Your task to perform on an android device: turn off smart reply in the gmail app Image 0: 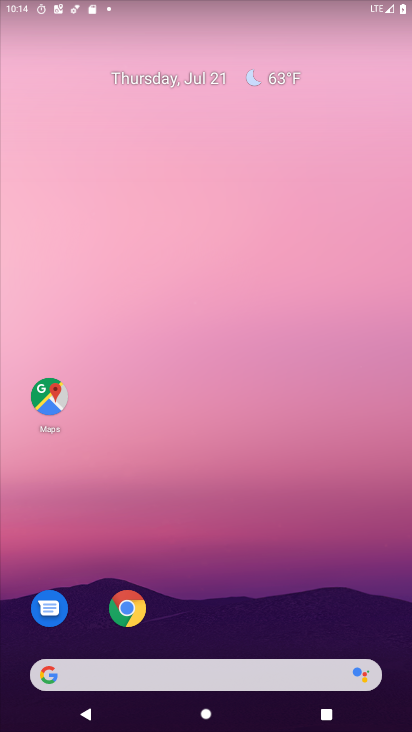
Step 0: drag from (219, 681) to (378, 124)
Your task to perform on an android device: turn off smart reply in the gmail app Image 1: 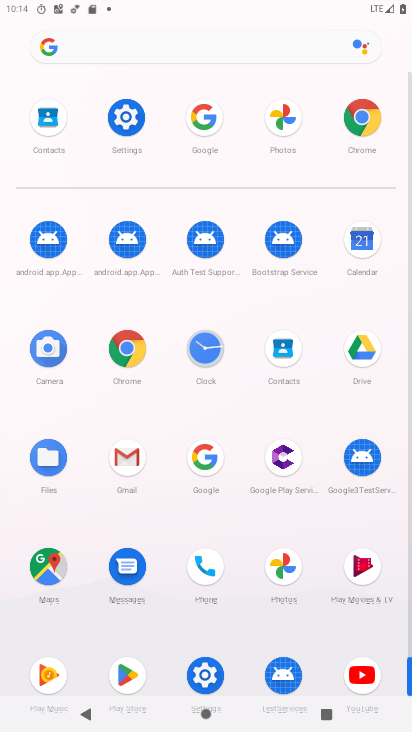
Step 1: click (133, 473)
Your task to perform on an android device: turn off smart reply in the gmail app Image 2: 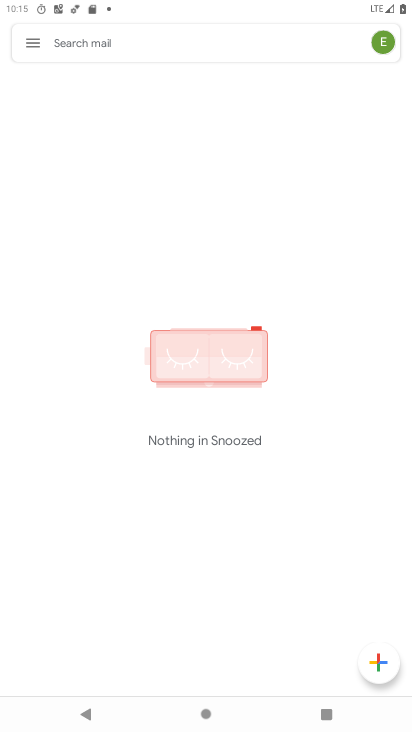
Step 2: click (32, 41)
Your task to perform on an android device: turn off smart reply in the gmail app Image 3: 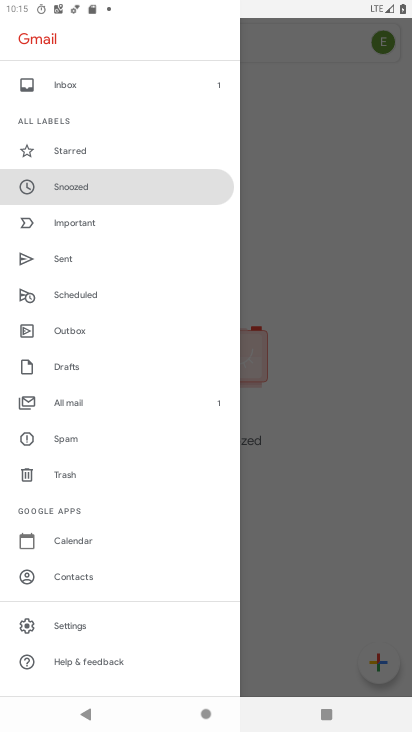
Step 3: click (65, 625)
Your task to perform on an android device: turn off smart reply in the gmail app Image 4: 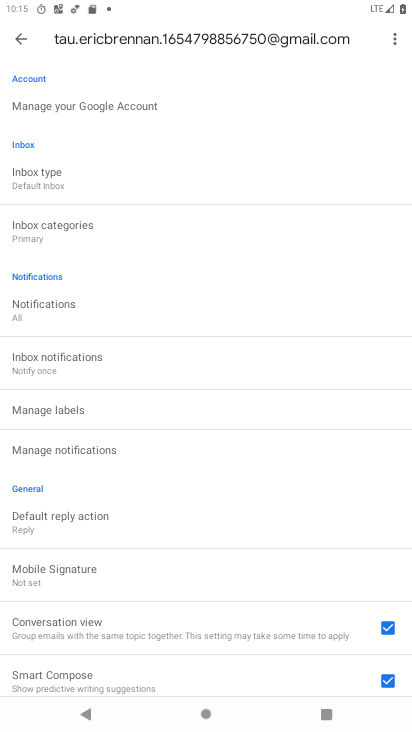
Step 4: drag from (126, 517) to (245, 146)
Your task to perform on an android device: turn off smart reply in the gmail app Image 5: 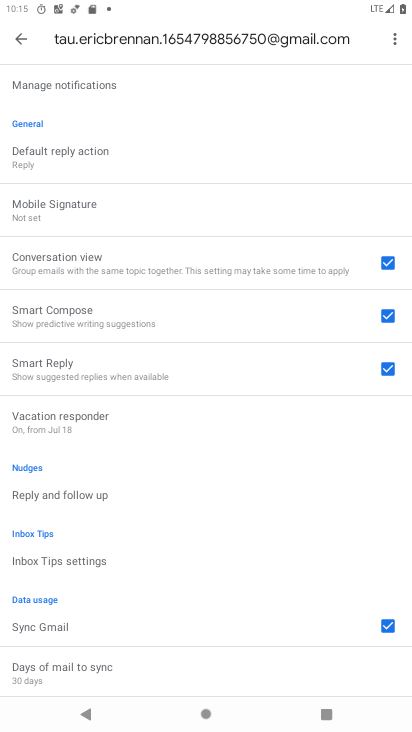
Step 5: click (389, 375)
Your task to perform on an android device: turn off smart reply in the gmail app Image 6: 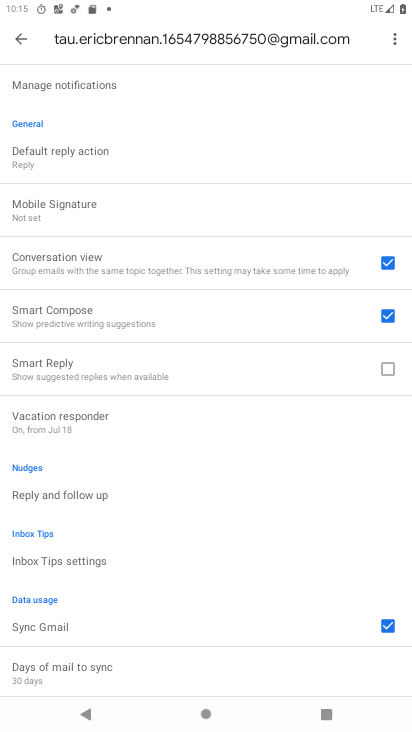
Step 6: task complete